Your task to perform on an android device: Open ESPN.com Image 0: 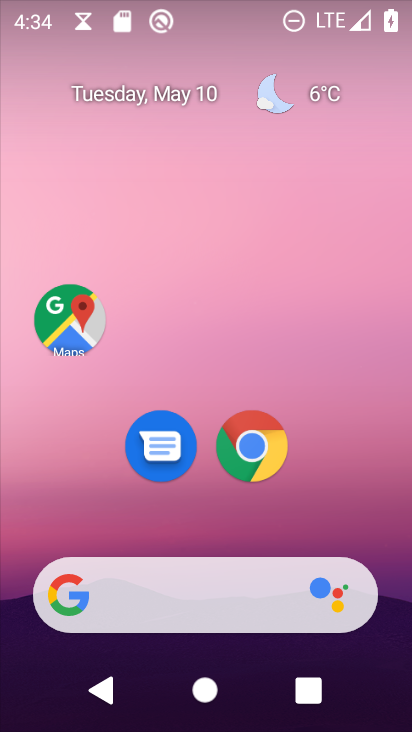
Step 0: click (257, 453)
Your task to perform on an android device: Open ESPN.com Image 1: 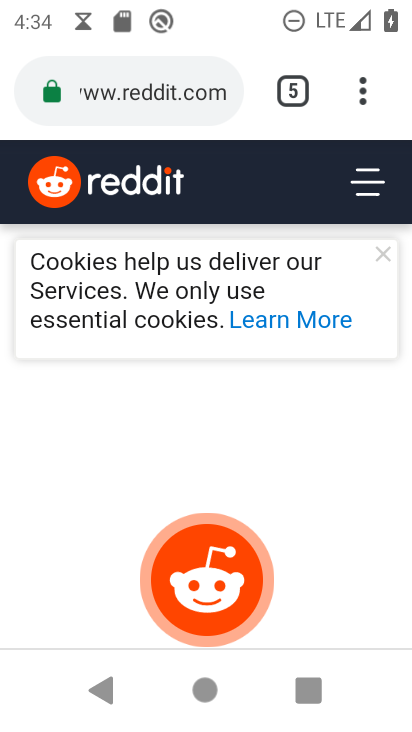
Step 1: click (290, 89)
Your task to perform on an android device: Open ESPN.com Image 2: 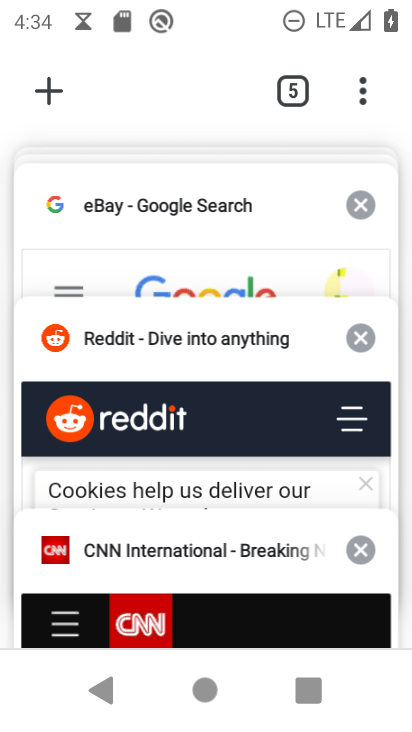
Step 2: drag from (186, 190) to (182, 517)
Your task to perform on an android device: Open ESPN.com Image 3: 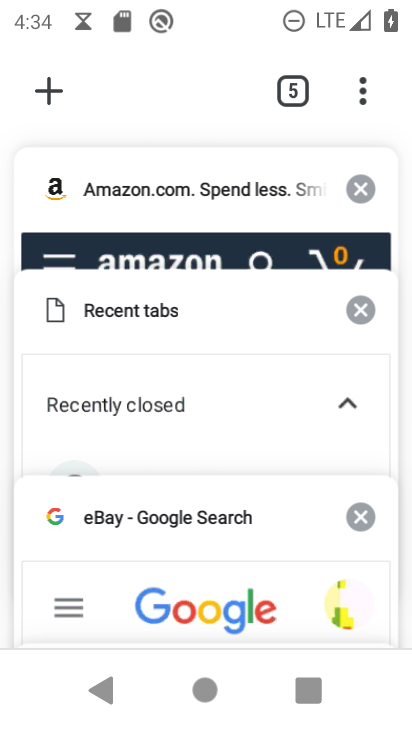
Step 3: drag from (184, 230) to (195, 589)
Your task to perform on an android device: Open ESPN.com Image 4: 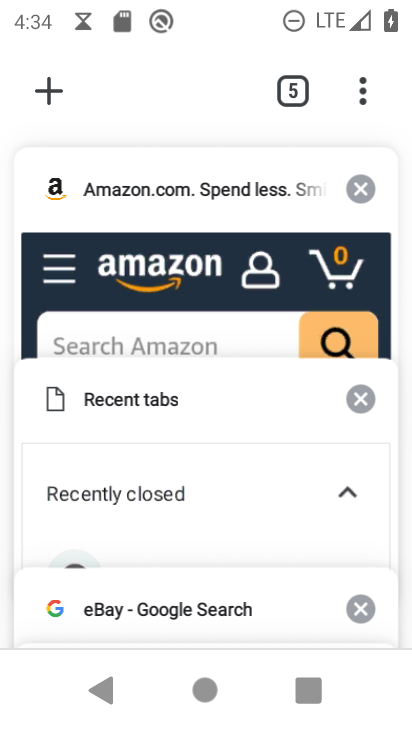
Step 4: click (47, 105)
Your task to perform on an android device: Open ESPN.com Image 5: 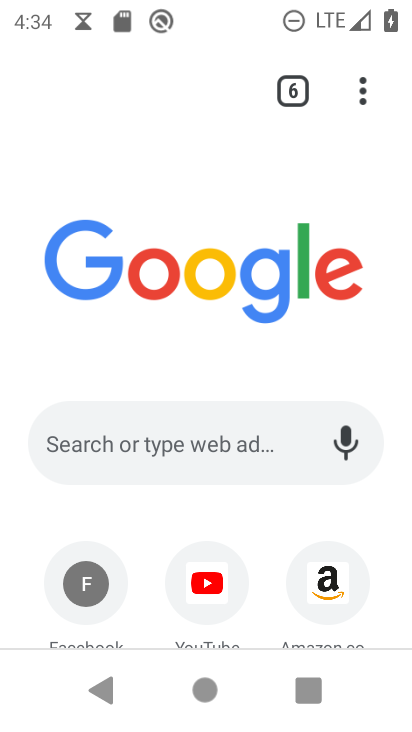
Step 5: drag from (263, 457) to (241, 210)
Your task to perform on an android device: Open ESPN.com Image 6: 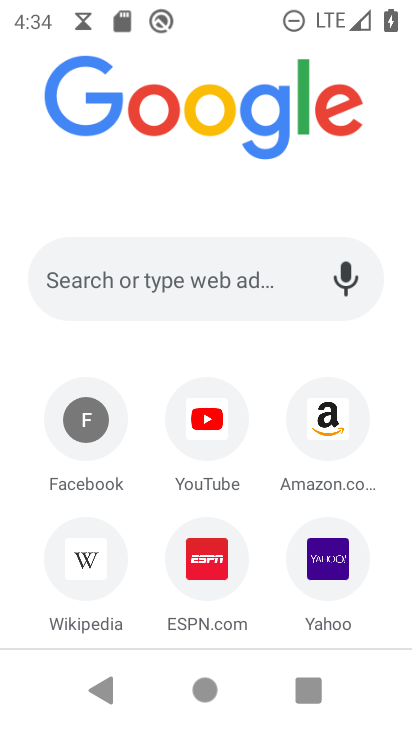
Step 6: click (196, 566)
Your task to perform on an android device: Open ESPN.com Image 7: 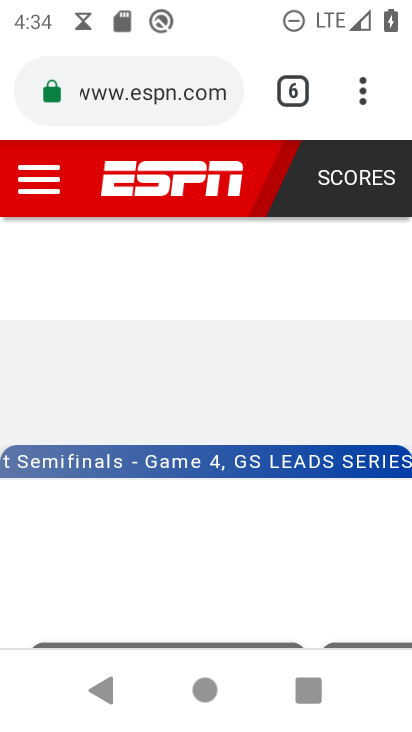
Step 7: task complete